Your task to perform on an android device: Open settings Image 0: 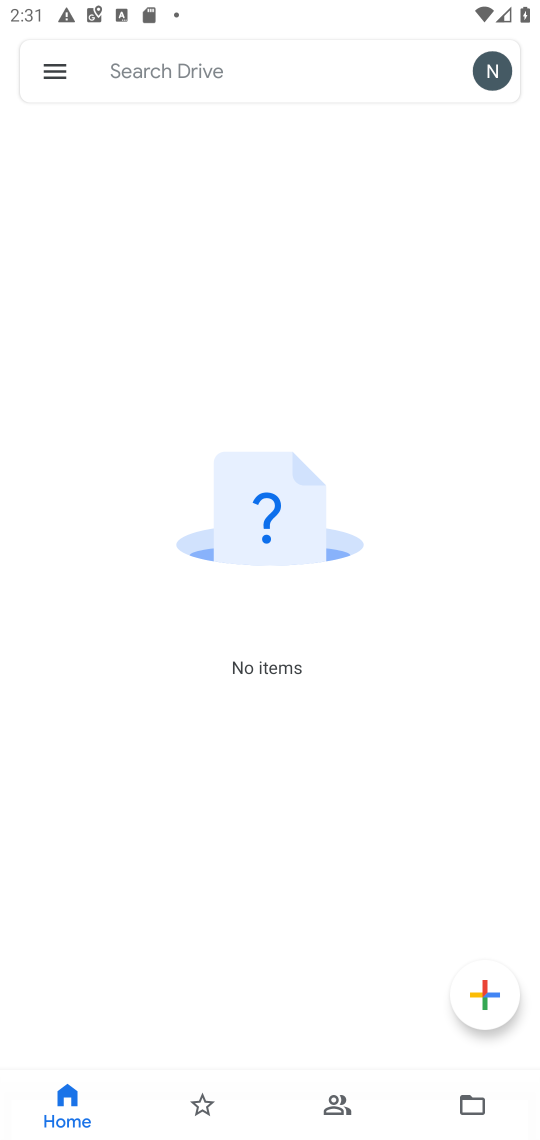
Step 0: press home button
Your task to perform on an android device: Open settings Image 1: 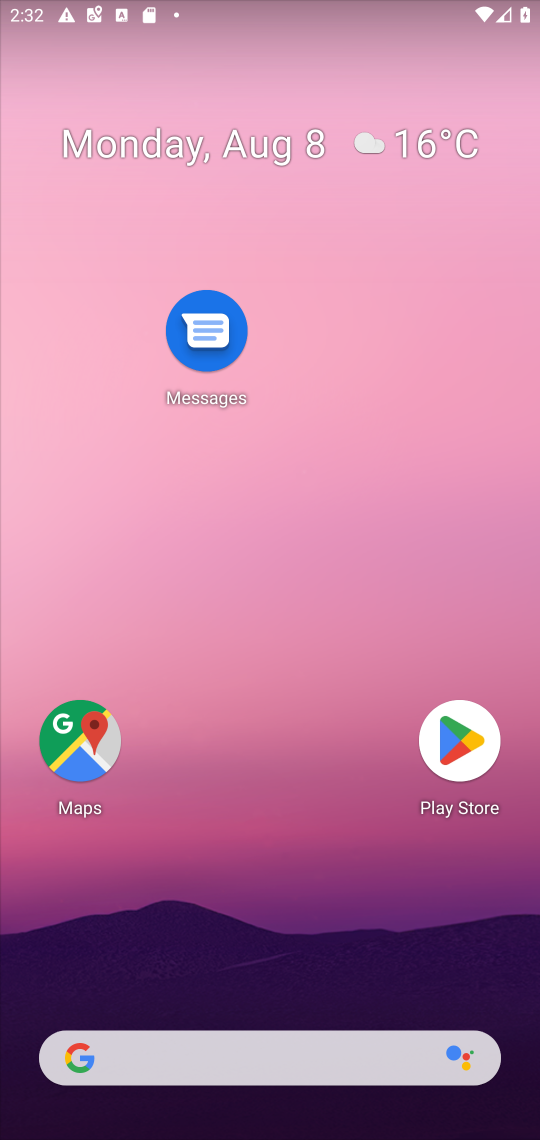
Step 1: drag from (259, 598) to (341, 11)
Your task to perform on an android device: Open settings Image 2: 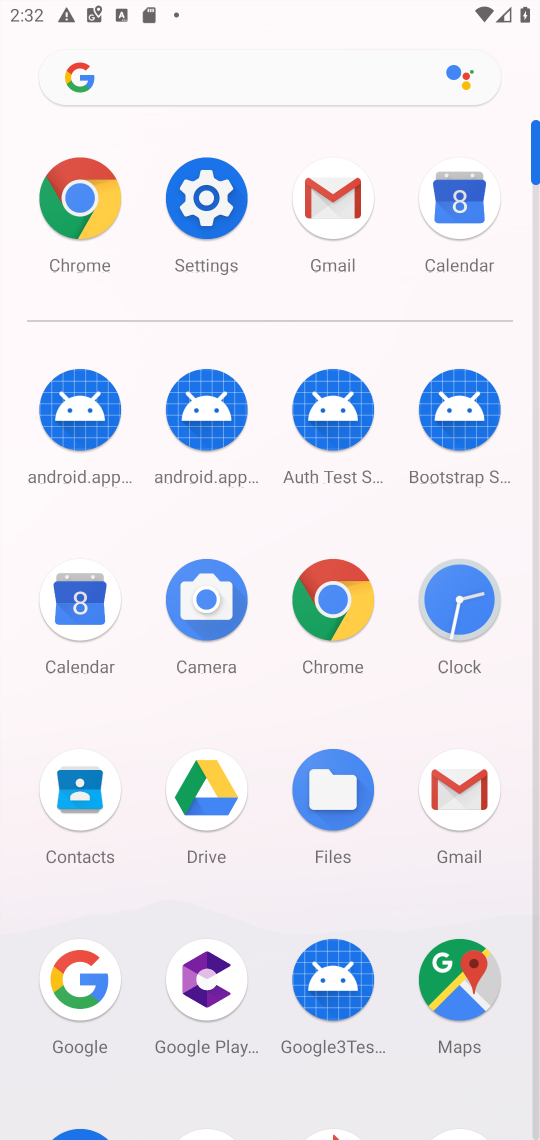
Step 2: click (210, 217)
Your task to perform on an android device: Open settings Image 3: 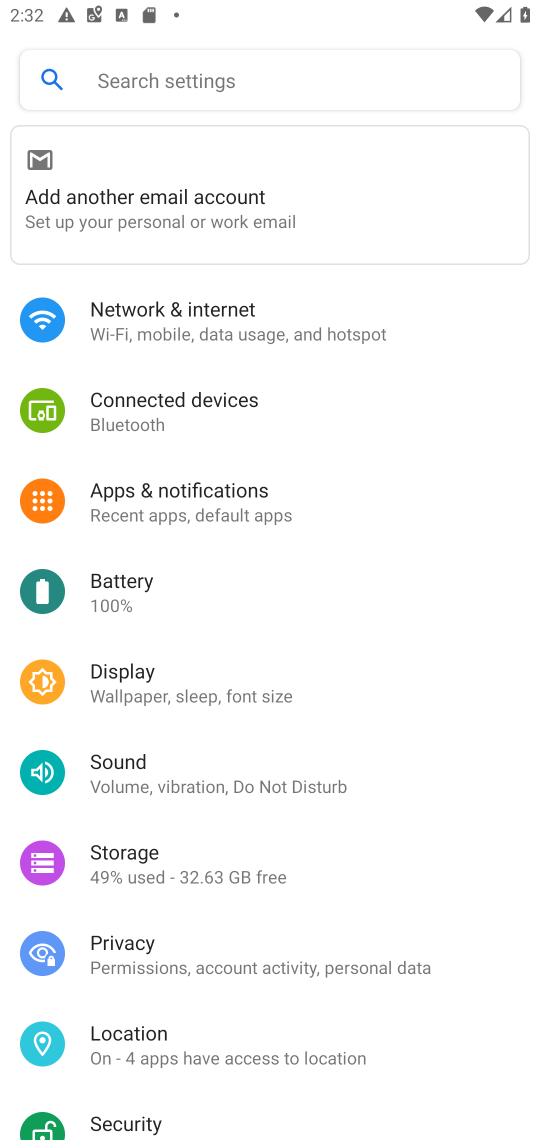
Step 3: task complete